Your task to perform on an android device: toggle priority inbox in the gmail app Image 0: 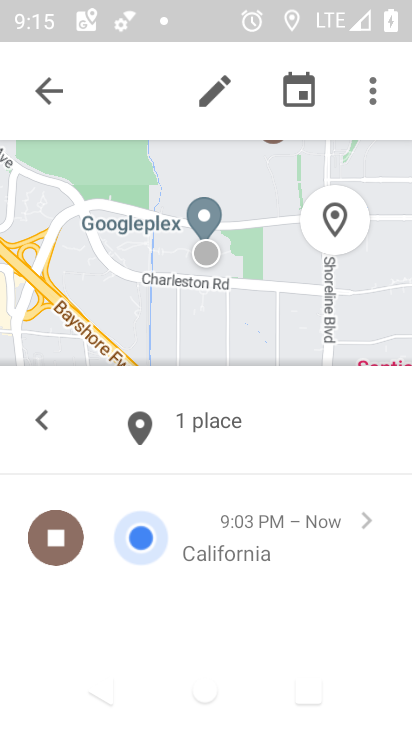
Step 0: press home button
Your task to perform on an android device: toggle priority inbox in the gmail app Image 1: 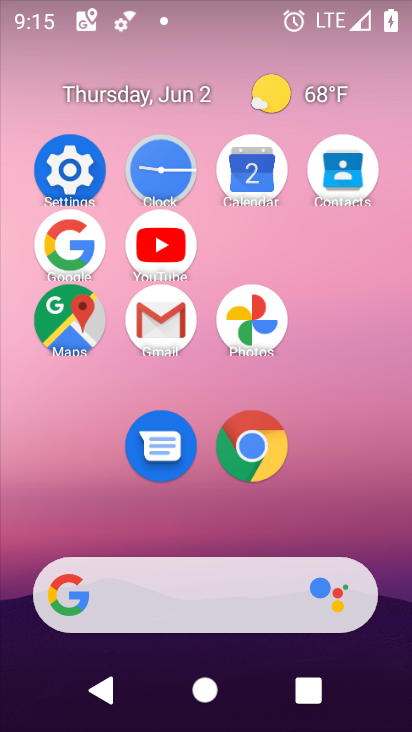
Step 1: click (170, 328)
Your task to perform on an android device: toggle priority inbox in the gmail app Image 2: 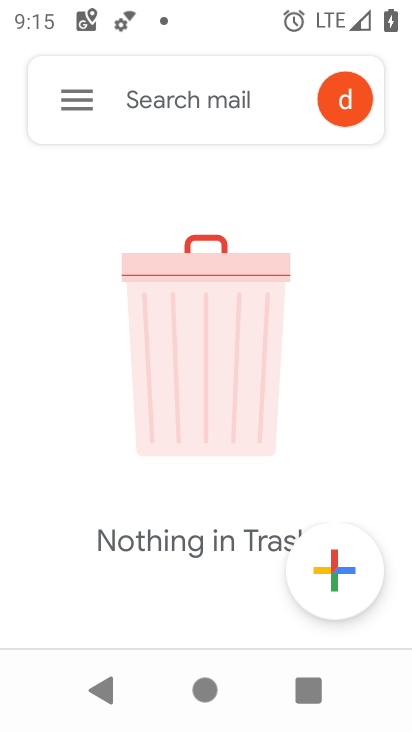
Step 2: click (60, 97)
Your task to perform on an android device: toggle priority inbox in the gmail app Image 3: 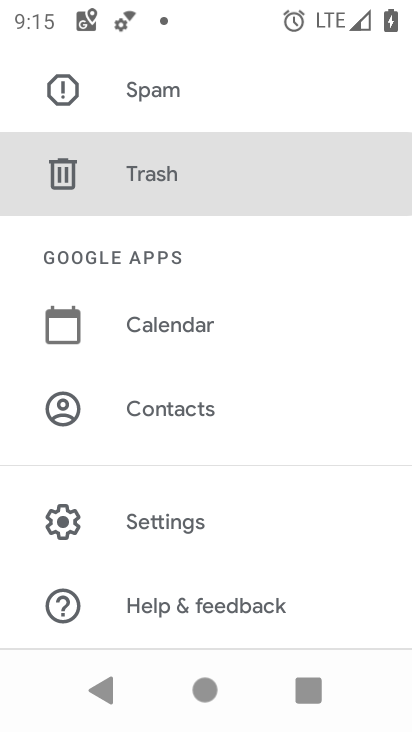
Step 3: click (216, 502)
Your task to perform on an android device: toggle priority inbox in the gmail app Image 4: 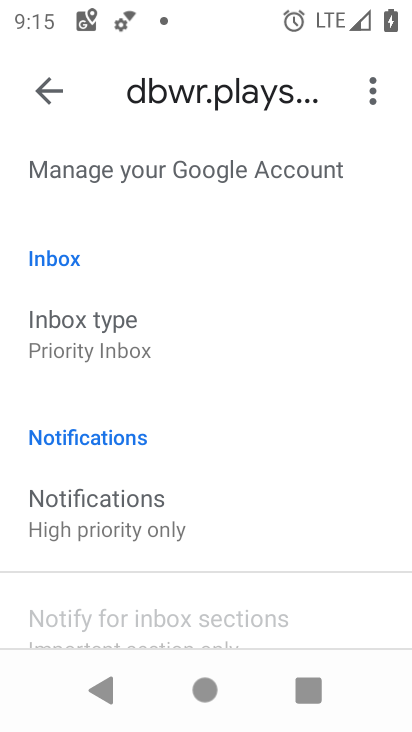
Step 4: click (195, 296)
Your task to perform on an android device: toggle priority inbox in the gmail app Image 5: 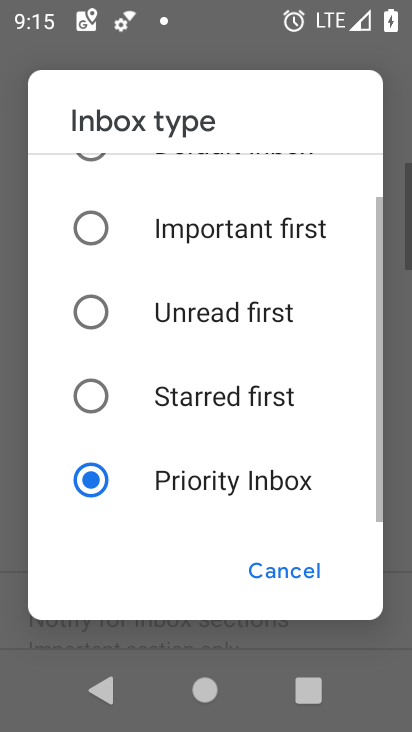
Step 5: click (165, 248)
Your task to perform on an android device: toggle priority inbox in the gmail app Image 6: 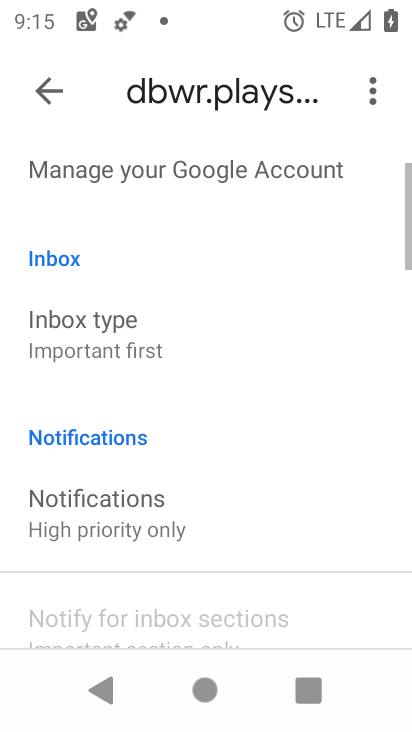
Step 6: task complete